Your task to perform on an android device: Open calendar and show me the second week of next month Image 0: 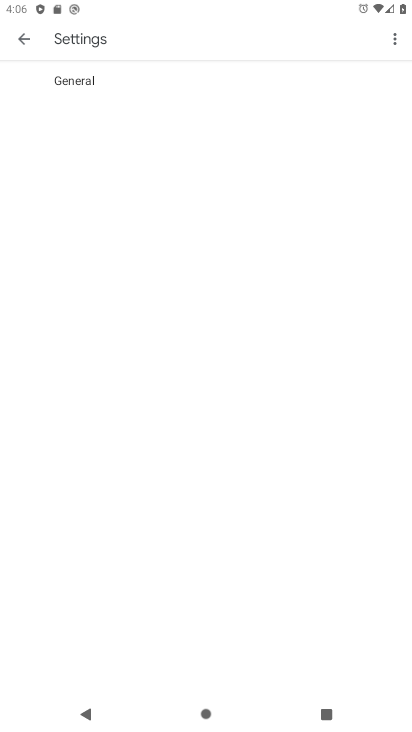
Step 0: press home button
Your task to perform on an android device: Open calendar and show me the second week of next month Image 1: 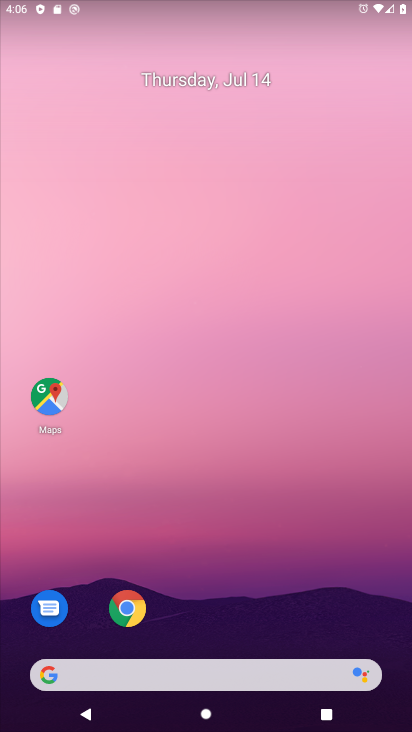
Step 1: drag from (243, 536) to (275, 1)
Your task to perform on an android device: Open calendar and show me the second week of next month Image 2: 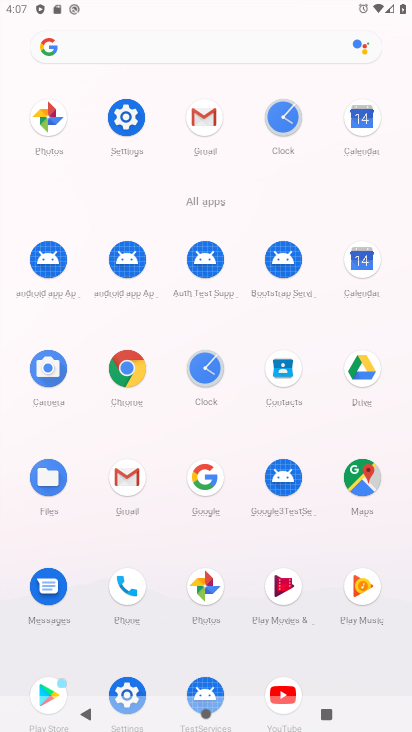
Step 2: click (357, 276)
Your task to perform on an android device: Open calendar and show me the second week of next month Image 3: 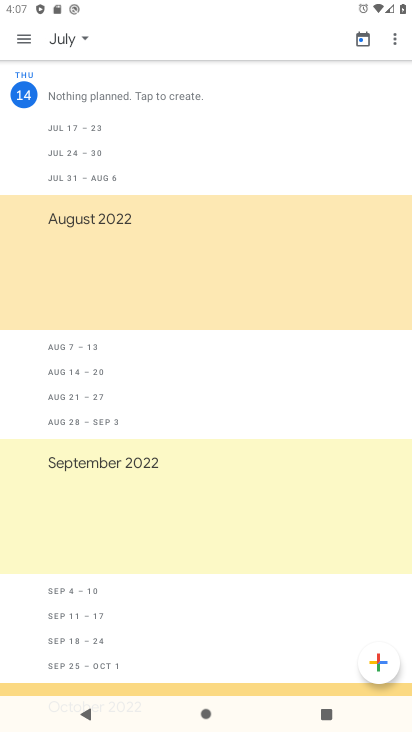
Step 3: click (62, 32)
Your task to perform on an android device: Open calendar and show me the second week of next month Image 4: 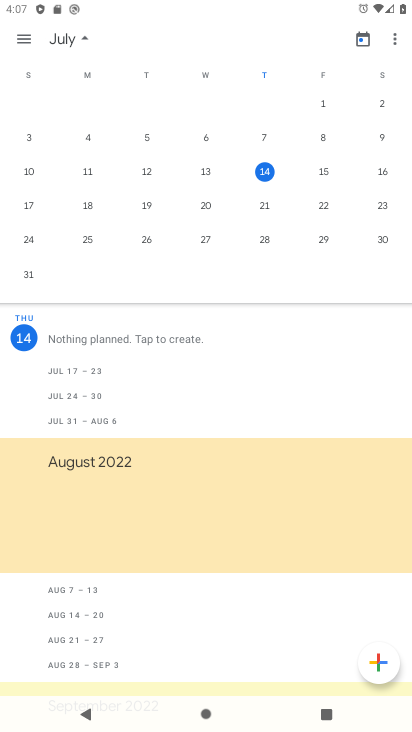
Step 4: task complete